Your task to perform on an android device: Open accessibility settings Image 0: 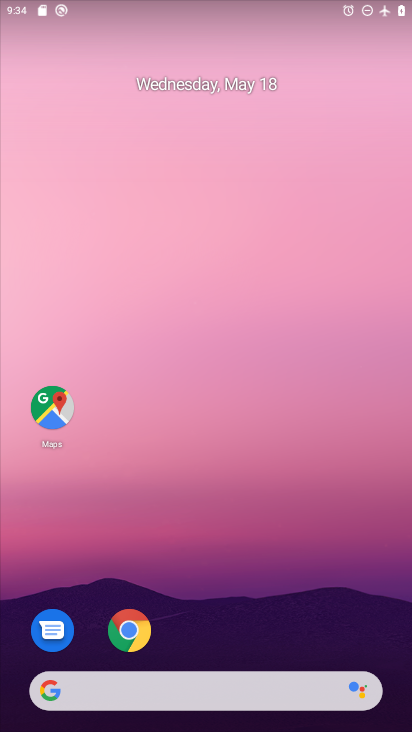
Step 0: drag from (207, 671) to (224, 0)
Your task to perform on an android device: Open accessibility settings Image 1: 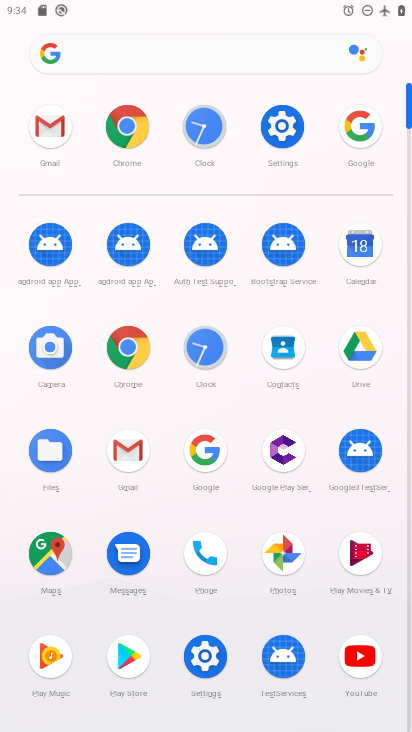
Step 1: click (288, 146)
Your task to perform on an android device: Open accessibility settings Image 2: 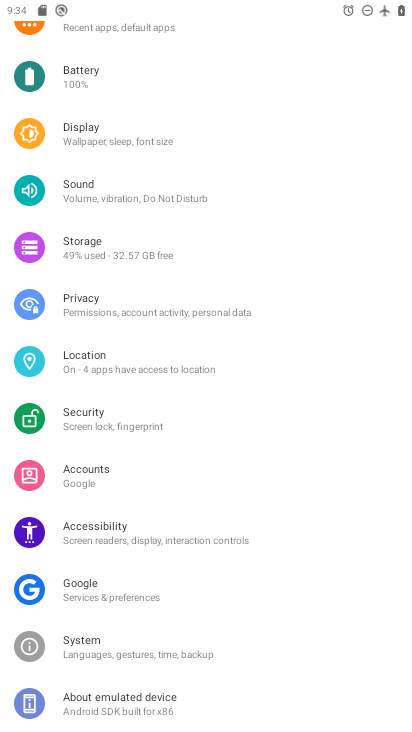
Step 2: click (117, 558)
Your task to perform on an android device: Open accessibility settings Image 3: 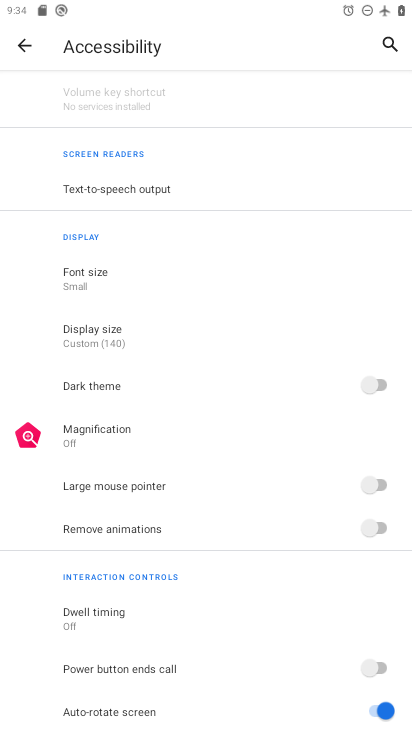
Step 3: task complete